Your task to perform on an android device: snooze an email in the gmail app Image 0: 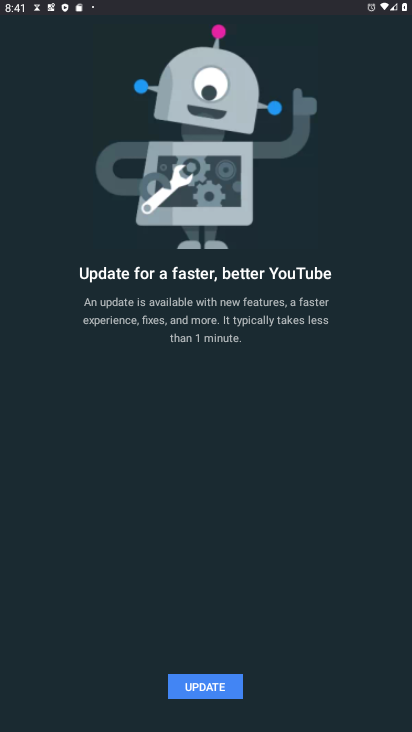
Step 0: drag from (324, 586) to (316, 238)
Your task to perform on an android device: snooze an email in the gmail app Image 1: 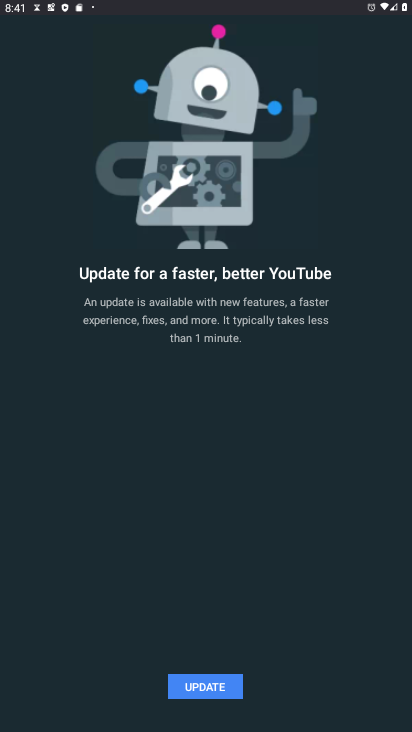
Step 1: press home button
Your task to perform on an android device: snooze an email in the gmail app Image 2: 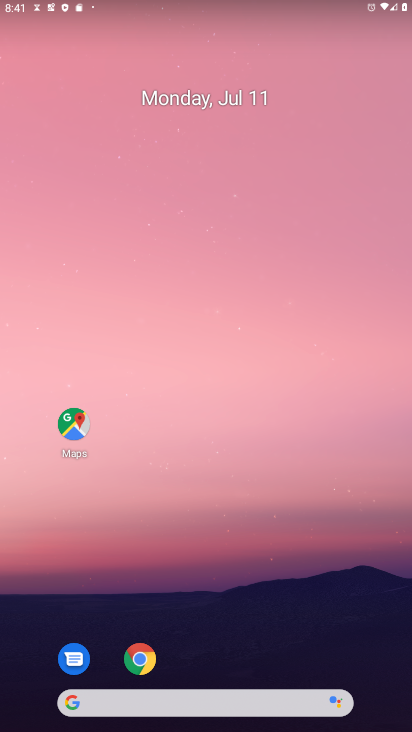
Step 2: drag from (187, 665) to (209, 152)
Your task to perform on an android device: snooze an email in the gmail app Image 3: 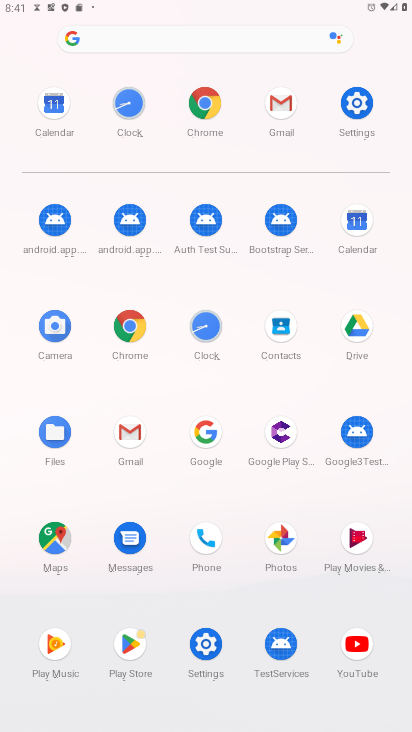
Step 3: click (126, 442)
Your task to perform on an android device: snooze an email in the gmail app Image 4: 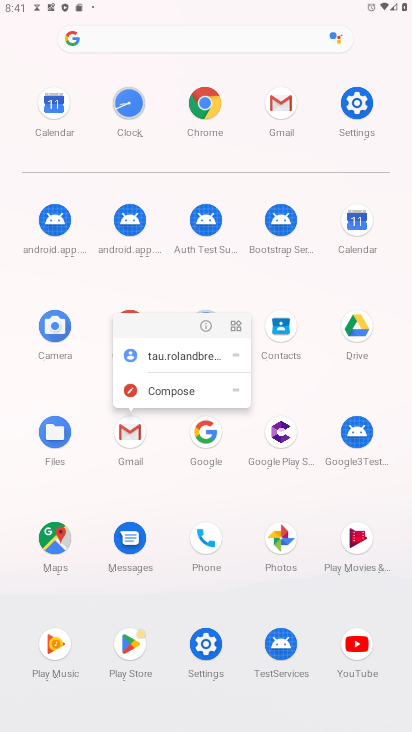
Step 4: click (202, 317)
Your task to perform on an android device: snooze an email in the gmail app Image 5: 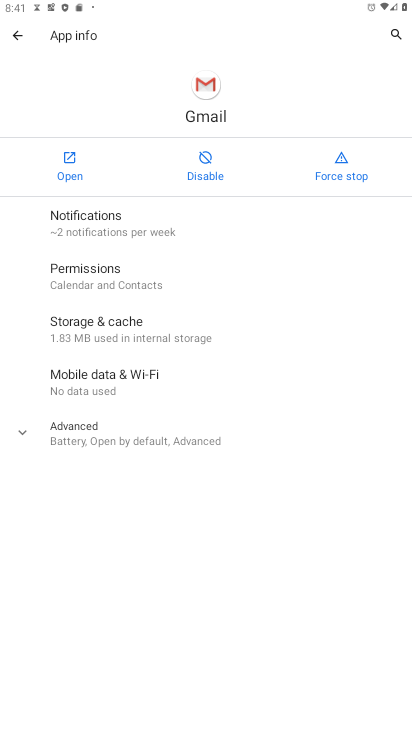
Step 5: click (69, 154)
Your task to perform on an android device: snooze an email in the gmail app Image 6: 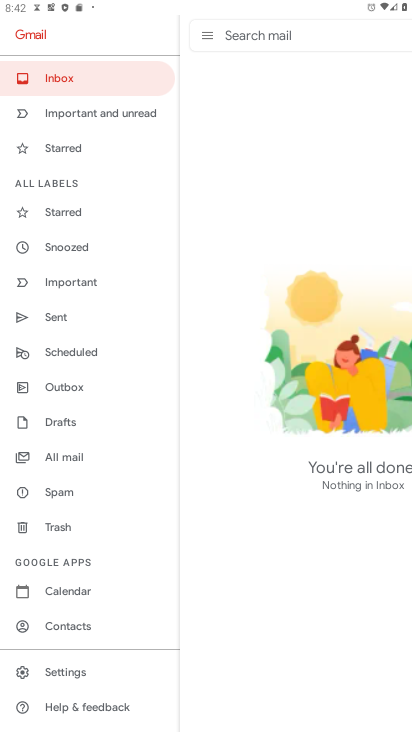
Step 6: drag from (68, 565) to (158, 135)
Your task to perform on an android device: snooze an email in the gmail app Image 7: 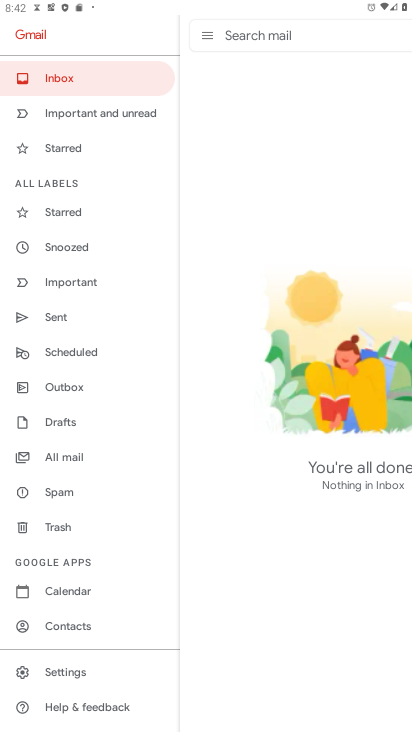
Step 7: click (246, 183)
Your task to perform on an android device: snooze an email in the gmail app Image 8: 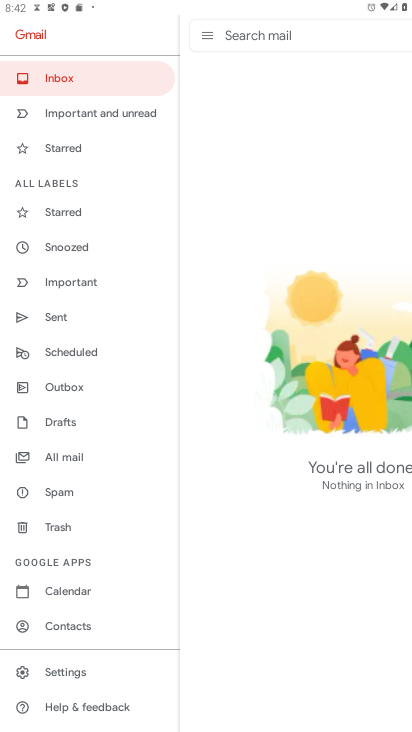
Step 8: task complete